Your task to perform on an android device: Open Amazon Image 0: 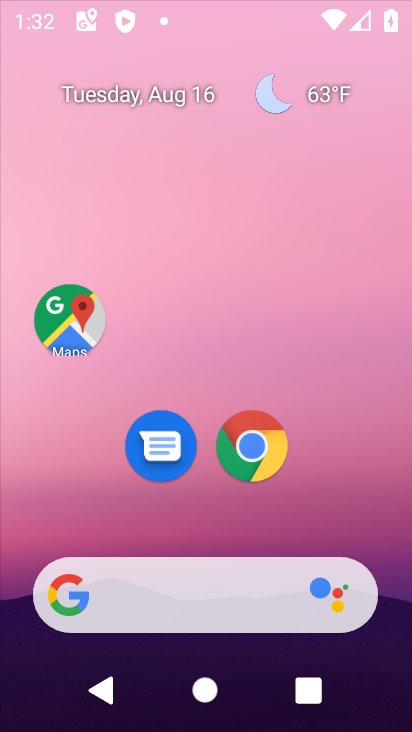
Step 0: press home button
Your task to perform on an android device: Open Amazon Image 1: 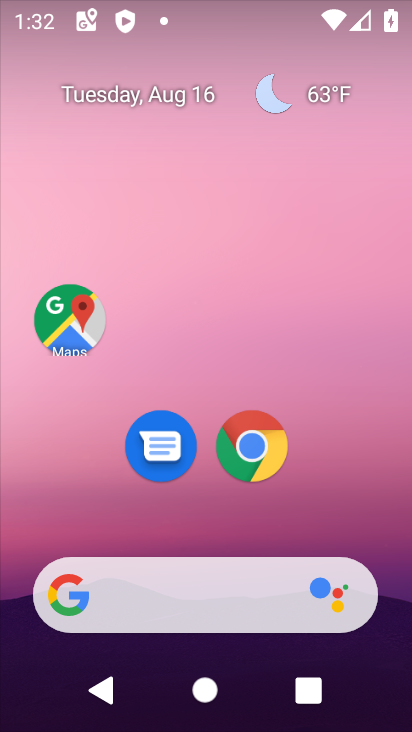
Step 1: click (246, 436)
Your task to perform on an android device: Open Amazon Image 2: 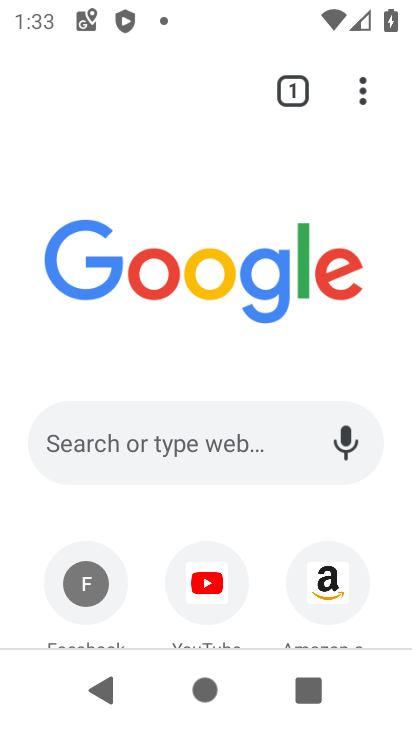
Step 2: click (320, 568)
Your task to perform on an android device: Open Amazon Image 3: 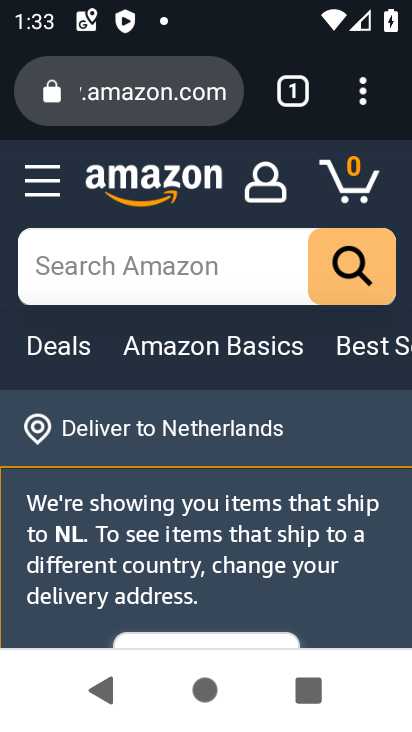
Step 3: task complete